Your task to perform on an android device: Search for seafood restaurants on Google Maps Image 0: 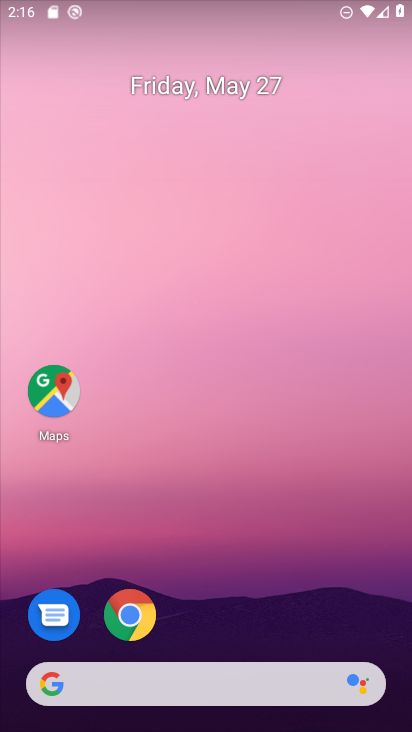
Step 0: drag from (228, 626) to (225, 224)
Your task to perform on an android device: Search for seafood restaurants on Google Maps Image 1: 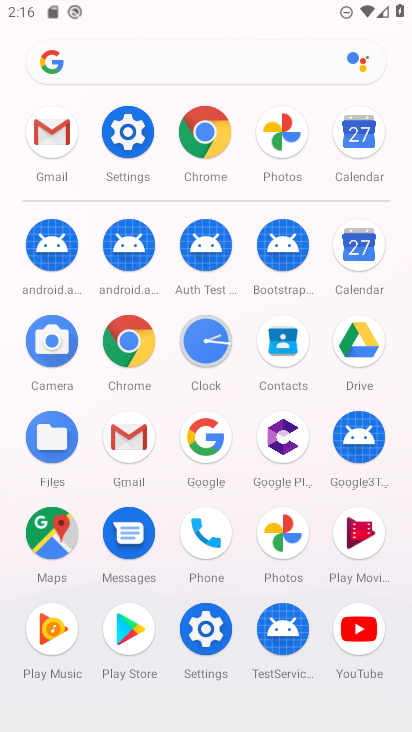
Step 1: click (62, 549)
Your task to perform on an android device: Search for seafood restaurants on Google Maps Image 2: 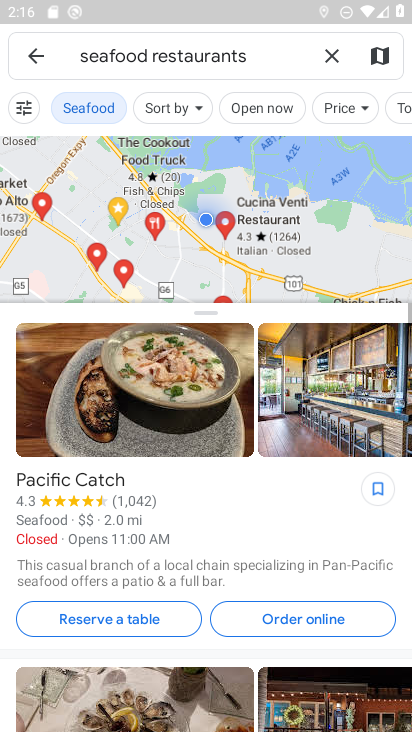
Step 2: press back button
Your task to perform on an android device: Search for seafood restaurants on Google Maps Image 3: 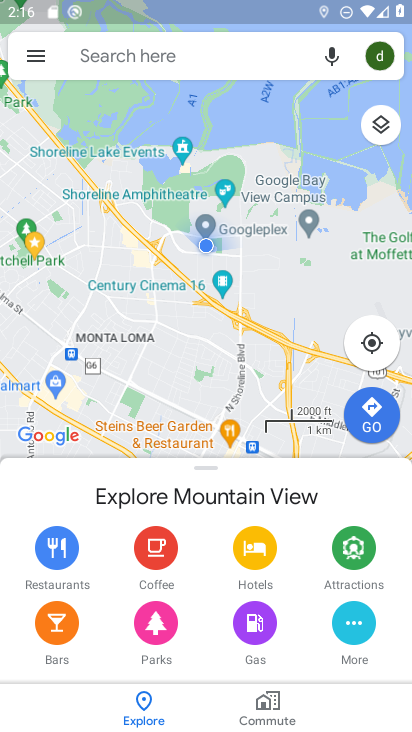
Step 3: click (148, 53)
Your task to perform on an android device: Search for seafood restaurants on Google Maps Image 4: 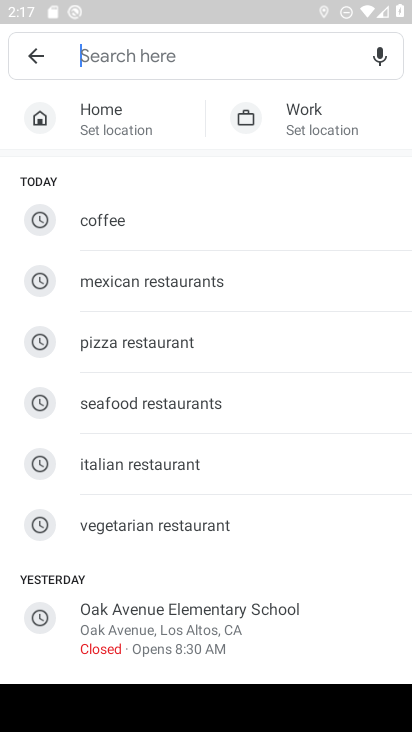
Step 4: type "seafood restaurants"
Your task to perform on an android device: Search for seafood restaurants on Google Maps Image 5: 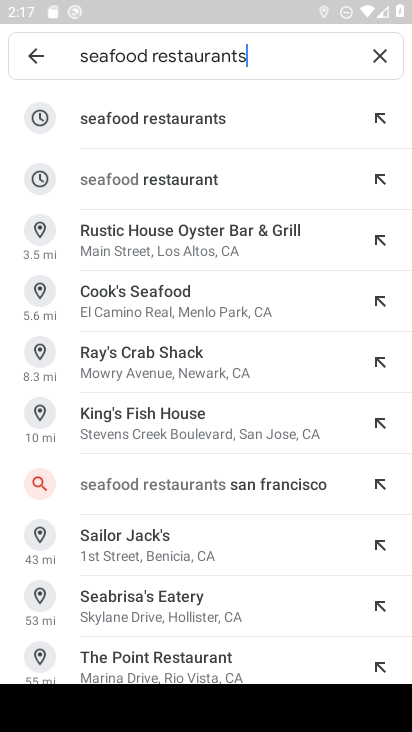
Step 5: click (246, 121)
Your task to perform on an android device: Search for seafood restaurants on Google Maps Image 6: 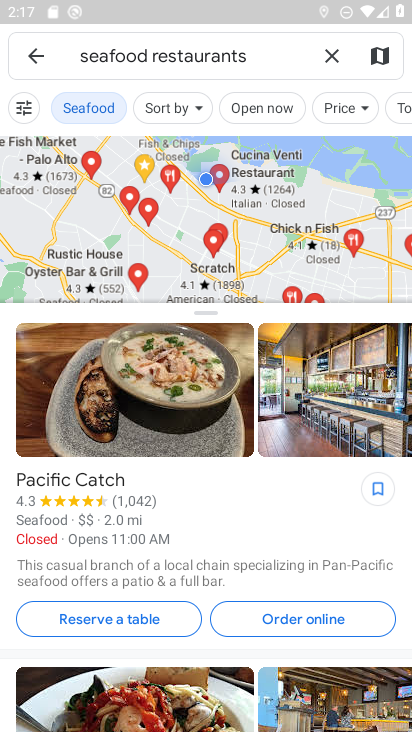
Step 6: task complete